Your task to perform on an android device: clear all cookies in the chrome app Image 0: 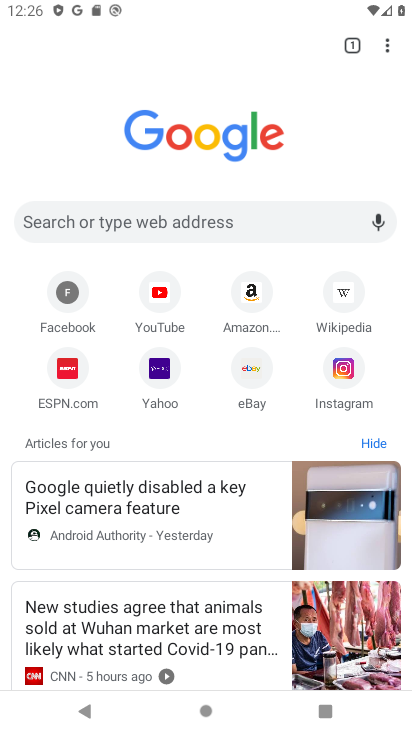
Step 0: click (383, 41)
Your task to perform on an android device: clear all cookies in the chrome app Image 1: 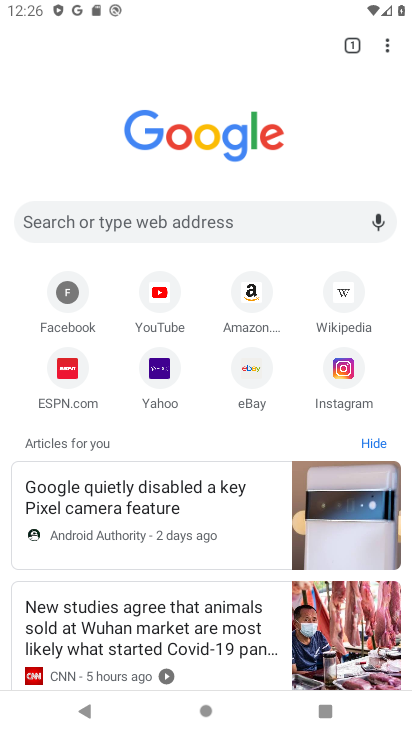
Step 1: click (383, 42)
Your task to perform on an android device: clear all cookies in the chrome app Image 2: 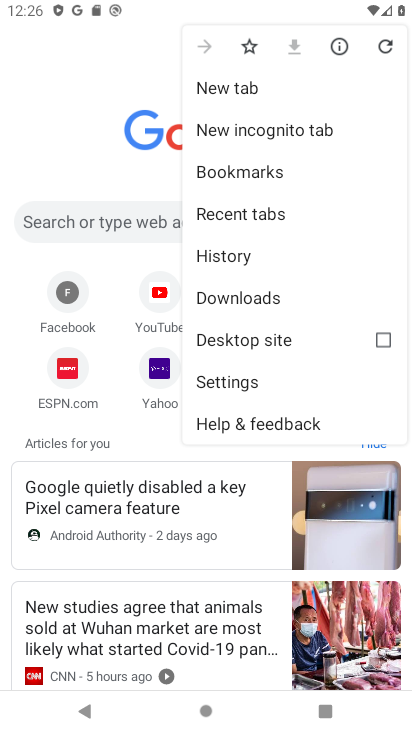
Step 2: click (214, 240)
Your task to perform on an android device: clear all cookies in the chrome app Image 3: 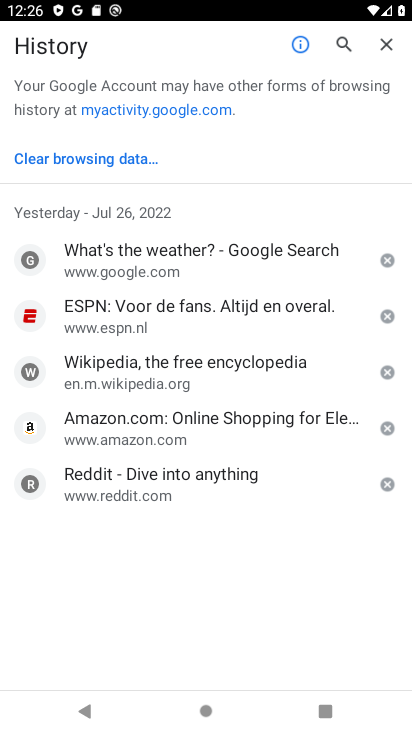
Step 3: click (78, 158)
Your task to perform on an android device: clear all cookies in the chrome app Image 4: 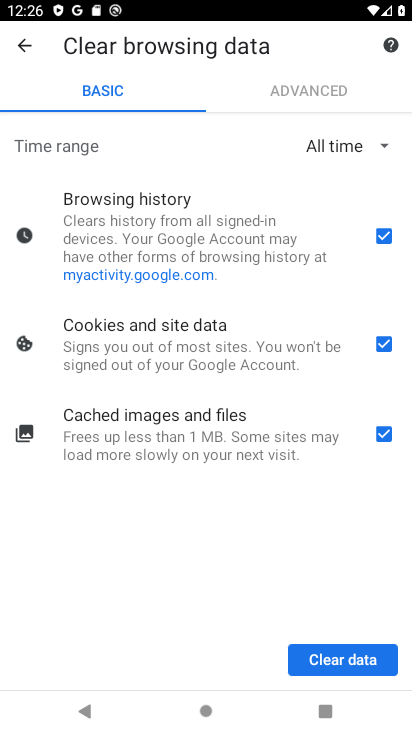
Step 4: click (340, 650)
Your task to perform on an android device: clear all cookies in the chrome app Image 5: 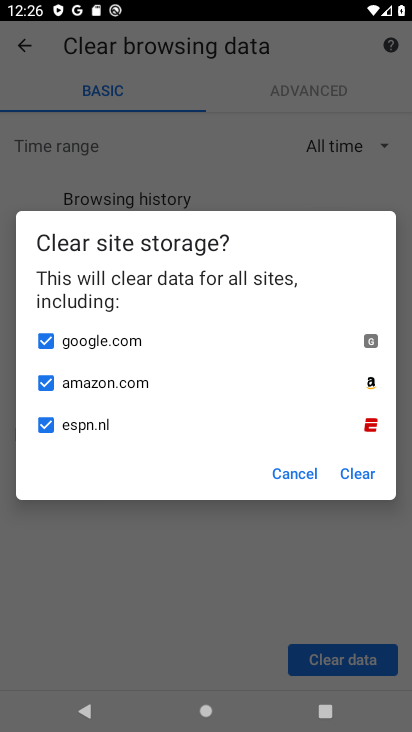
Step 5: click (358, 477)
Your task to perform on an android device: clear all cookies in the chrome app Image 6: 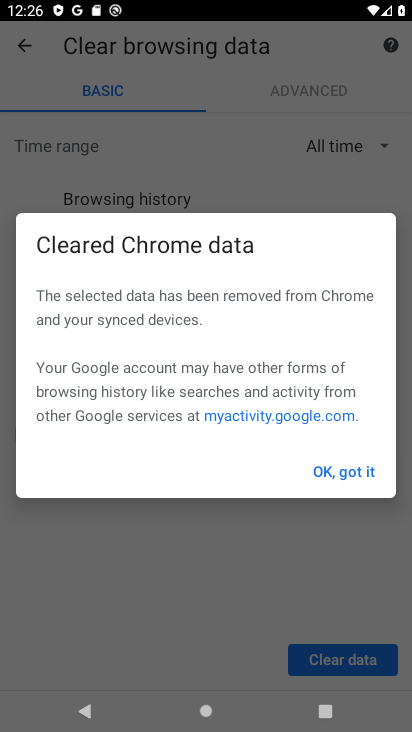
Step 6: click (345, 465)
Your task to perform on an android device: clear all cookies in the chrome app Image 7: 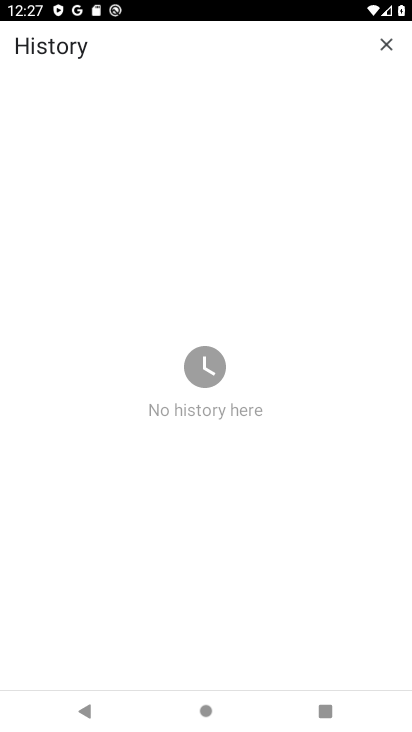
Step 7: task complete